Your task to perform on an android device: Open Youtube and go to "Your channel" Image 0: 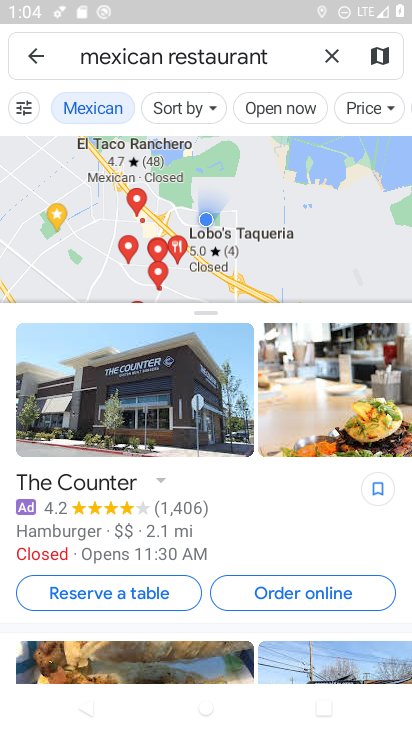
Step 0: press home button
Your task to perform on an android device: Open Youtube and go to "Your channel" Image 1: 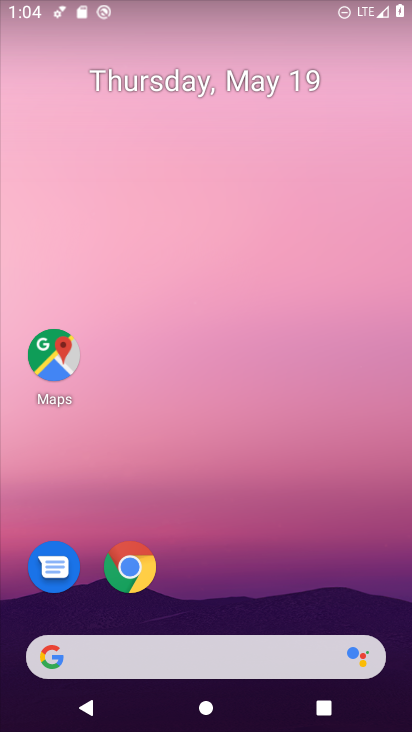
Step 1: drag from (270, 534) to (228, 44)
Your task to perform on an android device: Open Youtube and go to "Your channel" Image 2: 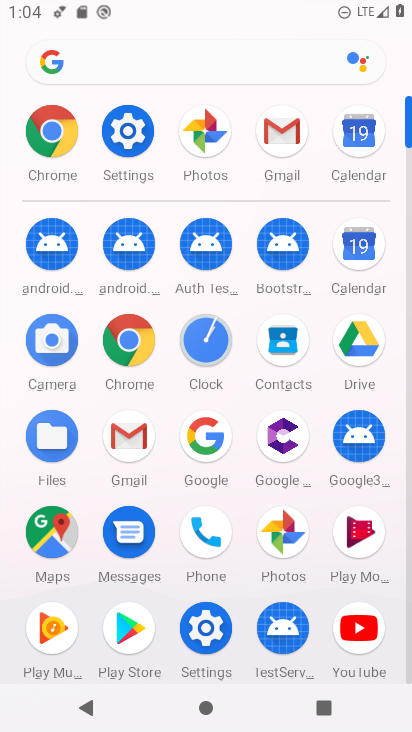
Step 2: click (363, 624)
Your task to perform on an android device: Open Youtube and go to "Your channel" Image 3: 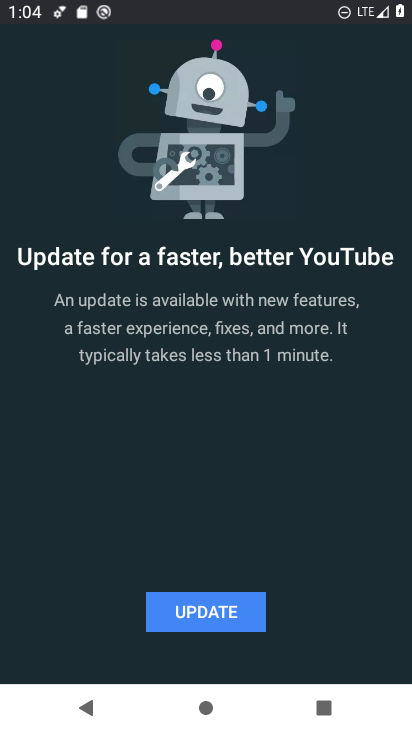
Step 3: click (249, 609)
Your task to perform on an android device: Open Youtube and go to "Your channel" Image 4: 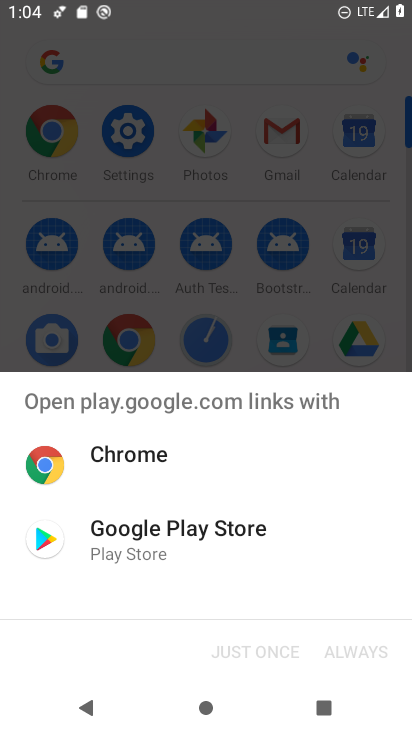
Step 4: click (194, 519)
Your task to perform on an android device: Open Youtube and go to "Your channel" Image 5: 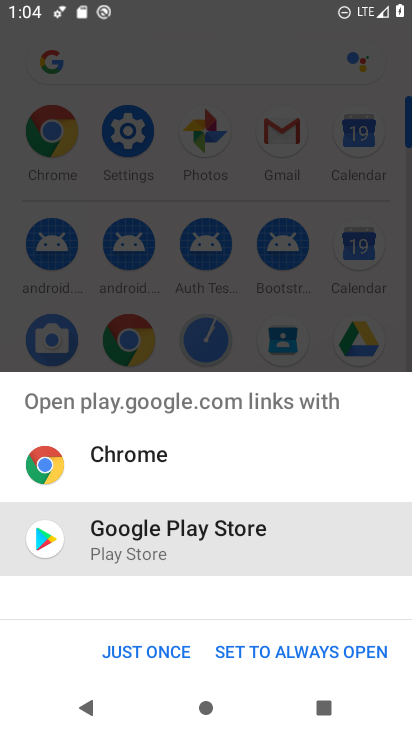
Step 5: click (166, 646)
Your task to perform on an android device: Open Youtube and go to "Your channel" Image 6: 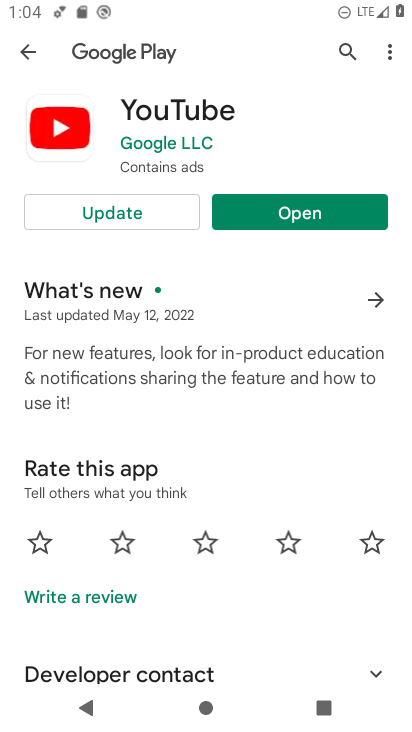
Step 6: click (327, 204)
Your task to perform on an android device: Open Youtube and go to "Your channel" Image 7: 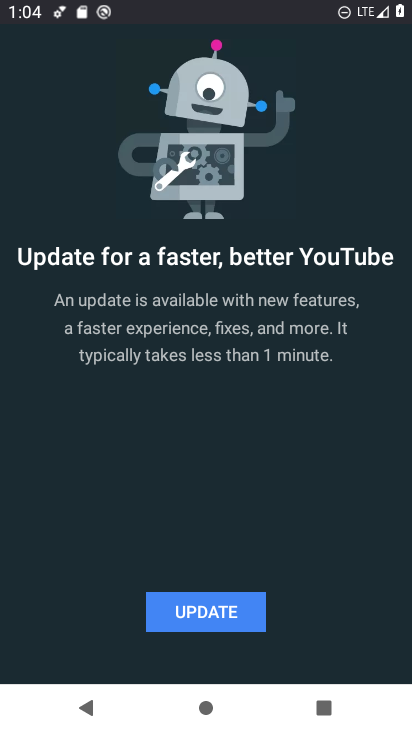
Step 7: click (228, 608)
Your task to perform on an android device: Open Youtube and go to "Your channel" Image 8: 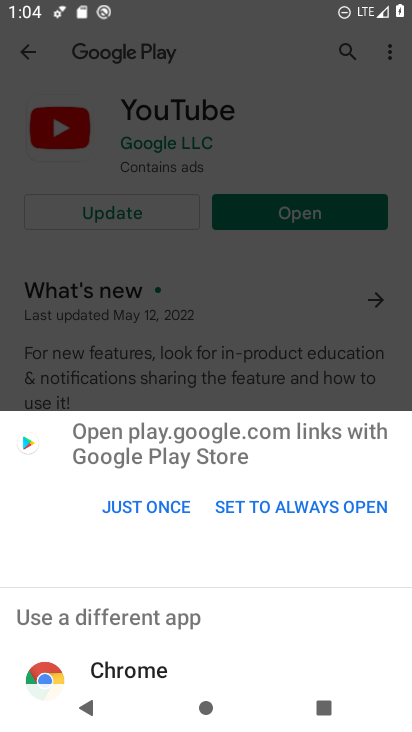
Step 8: click (143, 505)
Your task to perform on an android device: Open Youtube and go to "Your channel" Image 9: 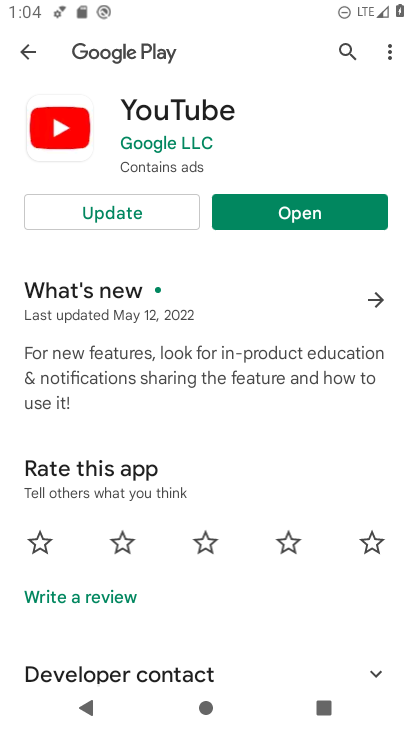
Step 9: click (136, 197)
Your task to perform on an android device: Open Youtube and go to "Your channel" Image 10: 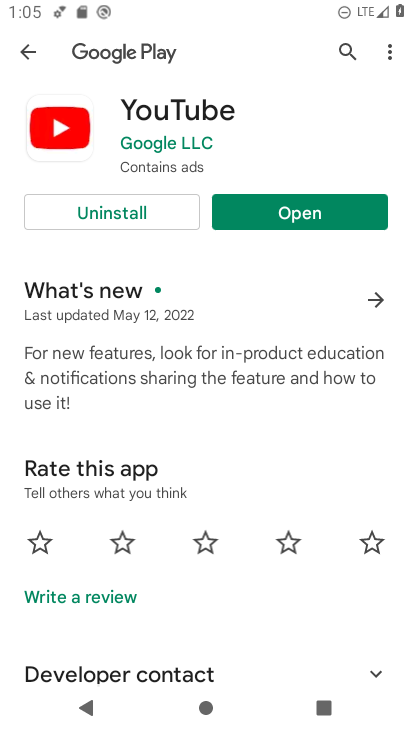
Step 10: click (330, 203)
Your task to perform on an android device: Open Youtube and go to "Your channel" Image 11: 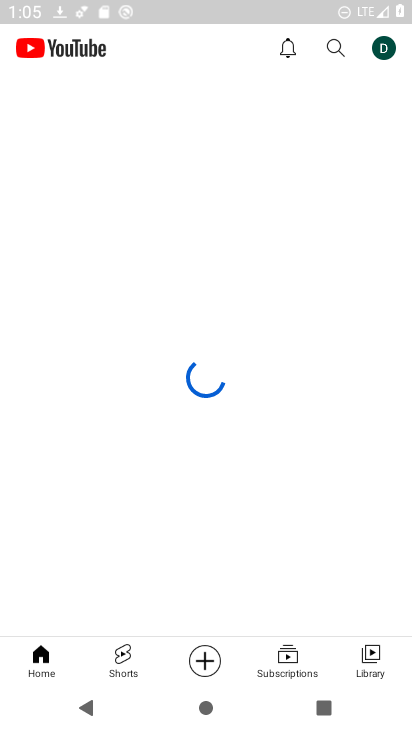
Step 11: click (383, 43)
Your task to perform on an android device: Open Youtube and go to "Your channel" Image 12: 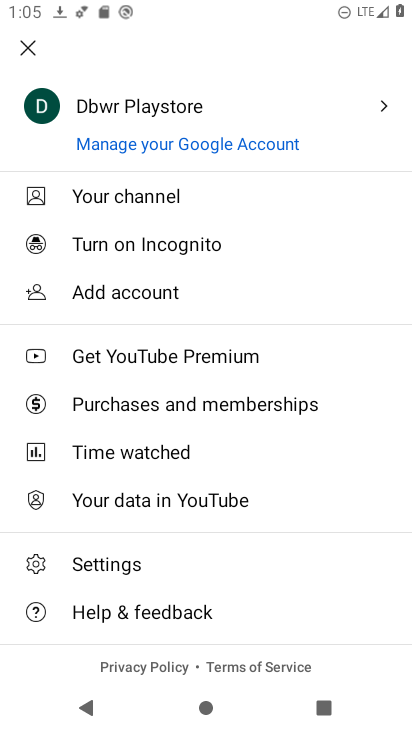
Step 12: click (225, 196)
Your task to perform on an android device: Open Youtube and go to "Your channel" Image 13: 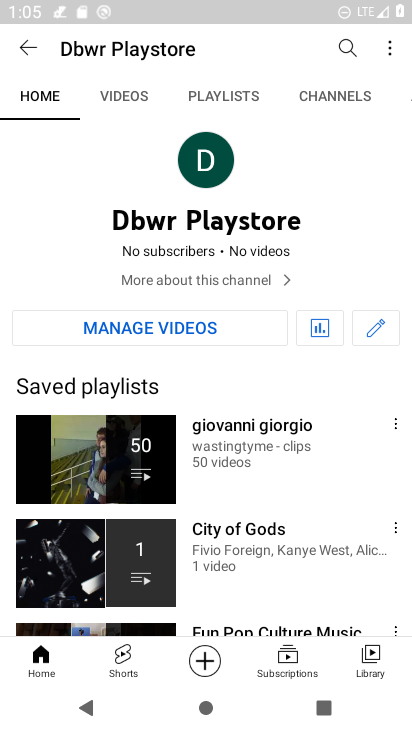
Step 13: task complete